Your task to perform on an android device: Search for vegetarian restaurants on Maps Image 0: 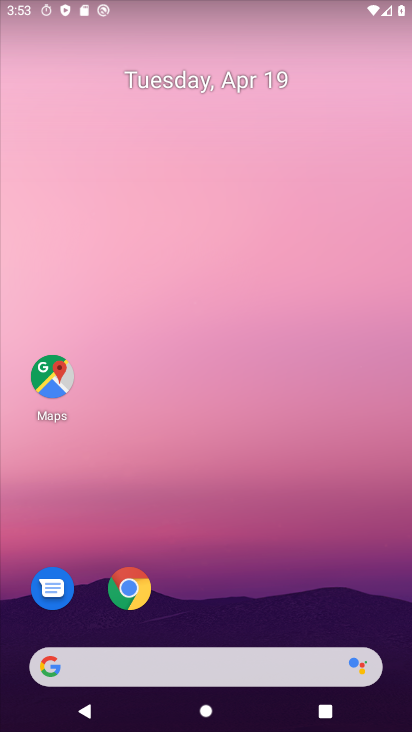
Step 0: click (51, 367)
Your task to perform on an android device: Search for vegetarian restaurants on Maps Image 1: 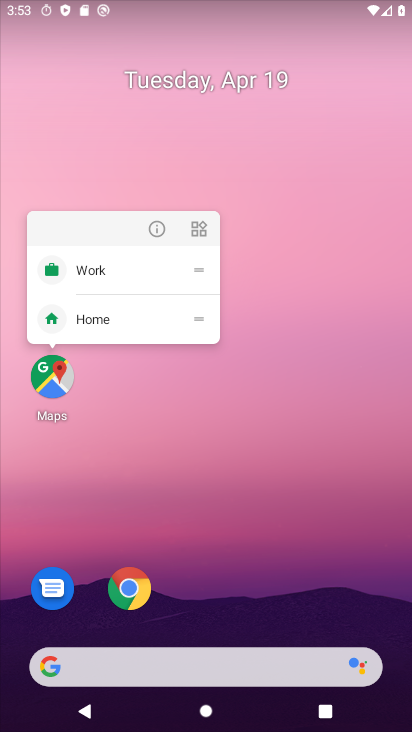
Step 1: click (56, 375)
Your task to perform on an android device: Search for vegetarian restaurants on Maps Image 2: 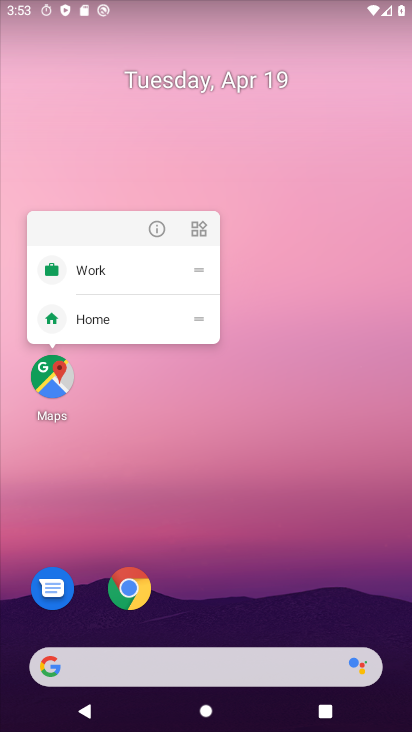
Step 2: click (46, 386)
Your task to perform on an android device: Search for vegetarian restaurants on Maps Image 3: 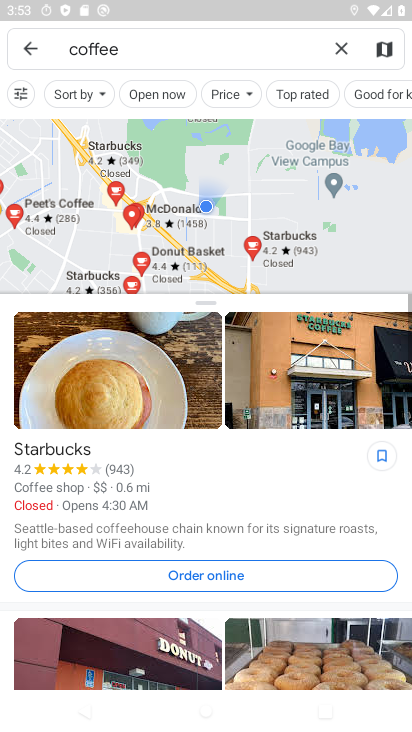
Step 3: click (337, 49)
Your task to perform on an android device: Search for vegetarian restaurants on Maps Image 4: 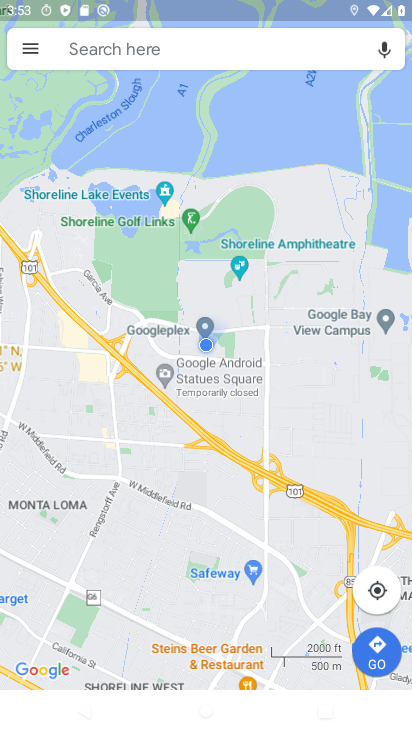
Step 4: click (124, 53)
Your task to perform on an android device: Search for vegetarian restaurants on Maps Image 5: 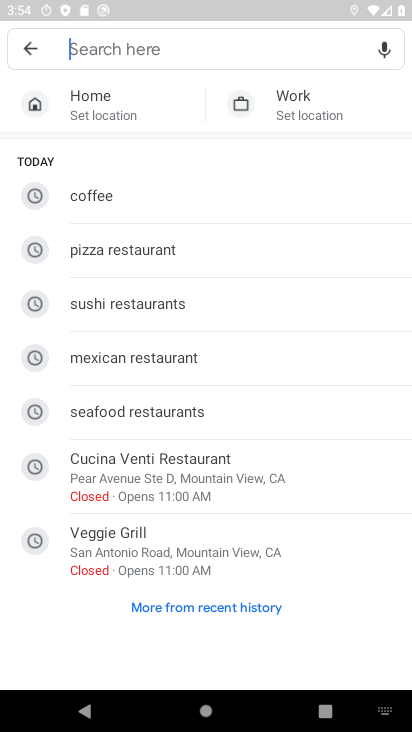
Step 5: type "vegetarian restaurants"
Your task to perform on an android device: Search for vegetarian restaurants on Maps Image 6: 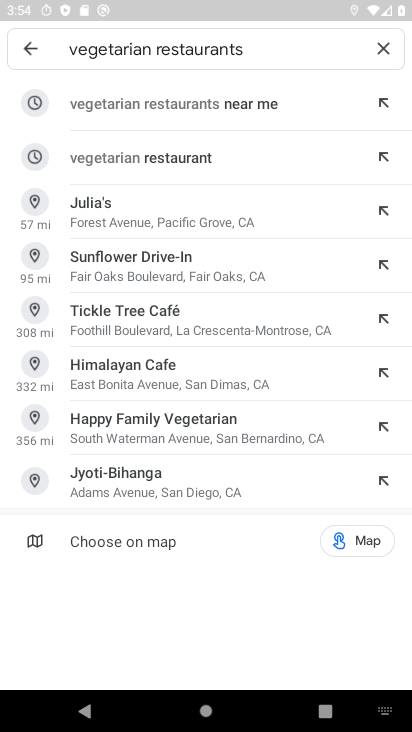
Step 6: click (177, 151)
Your task to perform on an android device: Search for vegetarian restaurants on Maps Image 7: 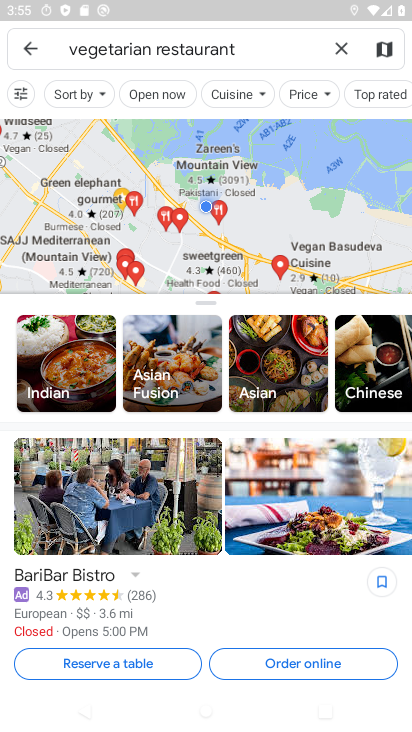
Step 7: task complete